Your task to perform on an android device: open app "ColorNote Notepad Notes" (install if not already installed) Image 0: 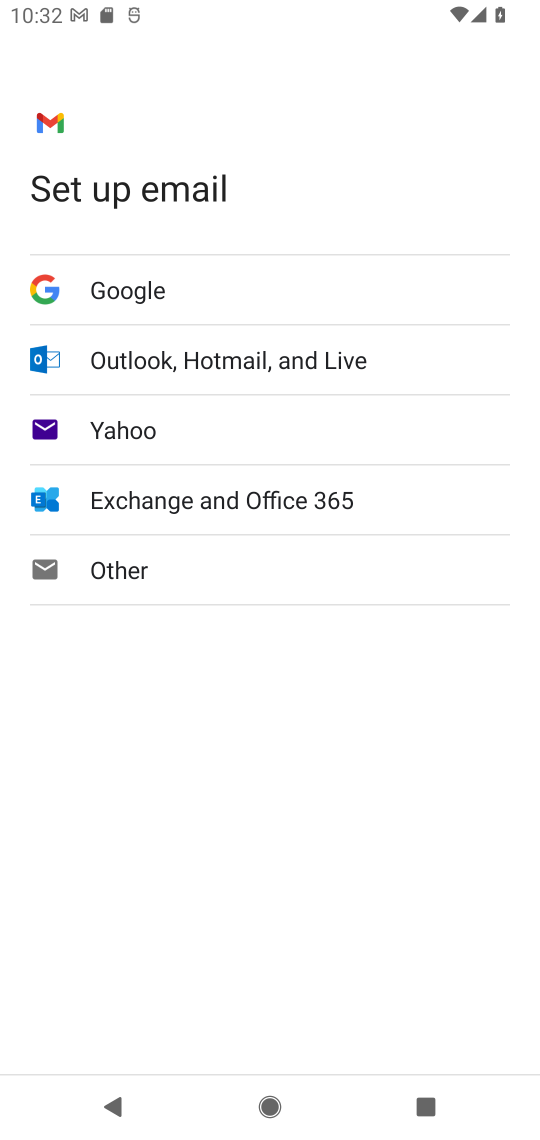
Step 0: press home button
Your task to perform on an android device: open app "ColorNote Notepad Notes" (install if not already installed) Image 1: 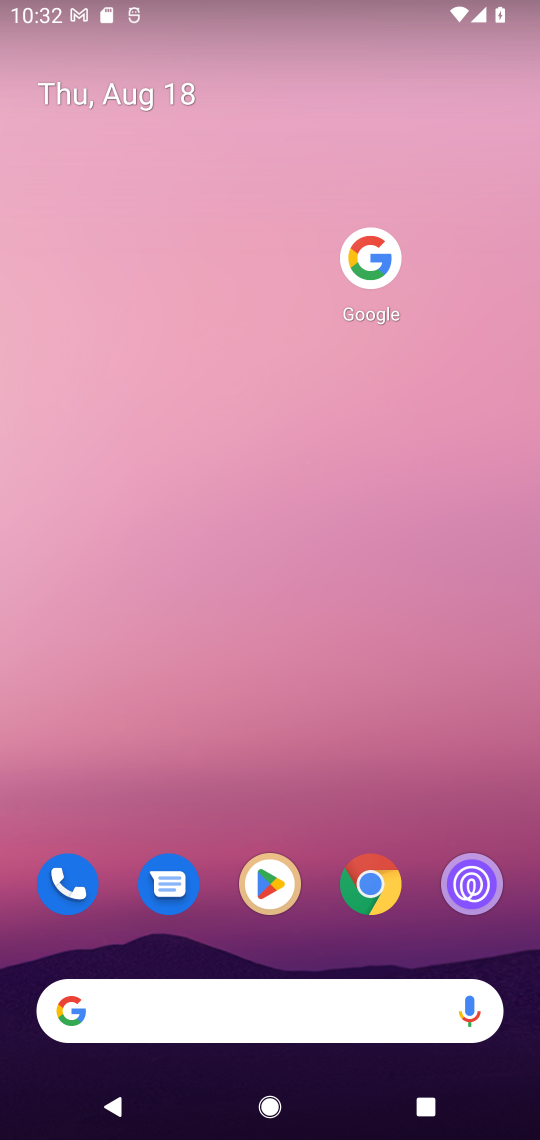
Step 1: click (278, 899)
Your task to perform on an android device: open app "ColorNote Notepad Notes" (install if not already installed) Image 2: 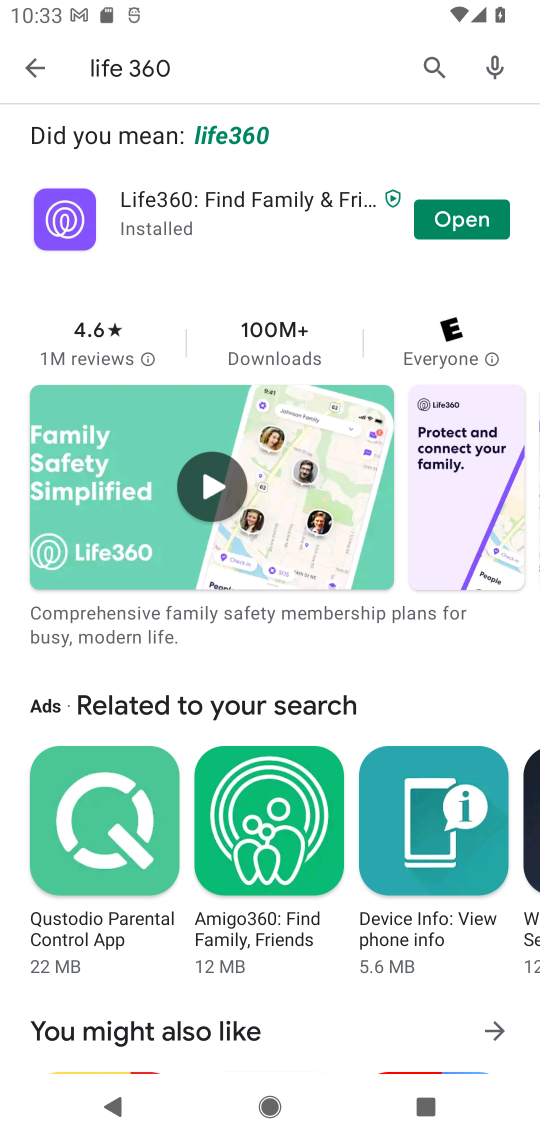
Step 2: click (428, 78)
Your task to perform on an android device: open app "ColorNote Notepad Notes" (install if not already installed) Image 3: 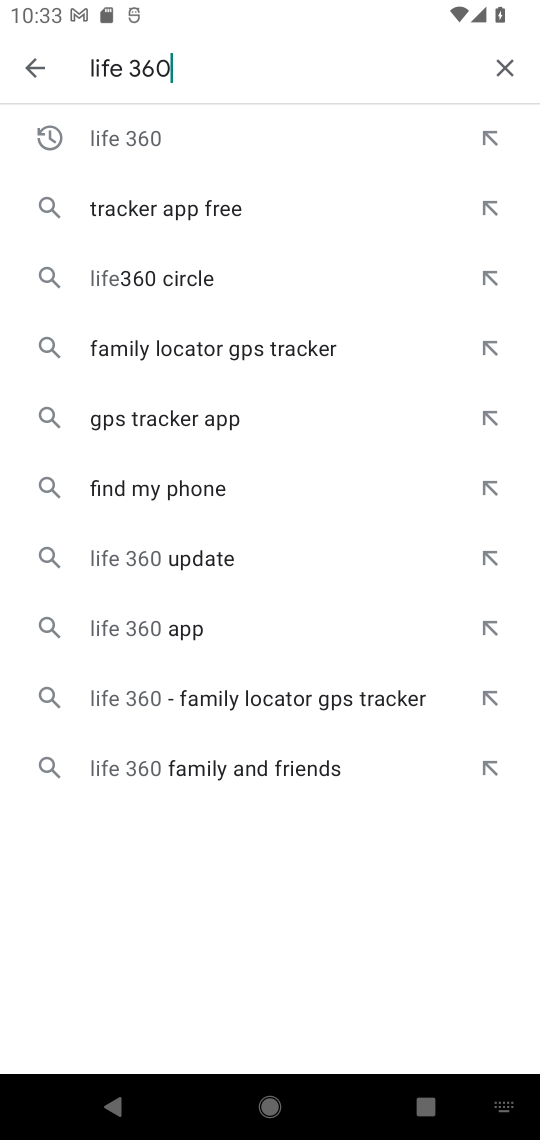
Step 3: click (522, 68)
Your task to perform on an android device: open app "ColorNote Notepad Notes" (install if not already installed) Image 4: 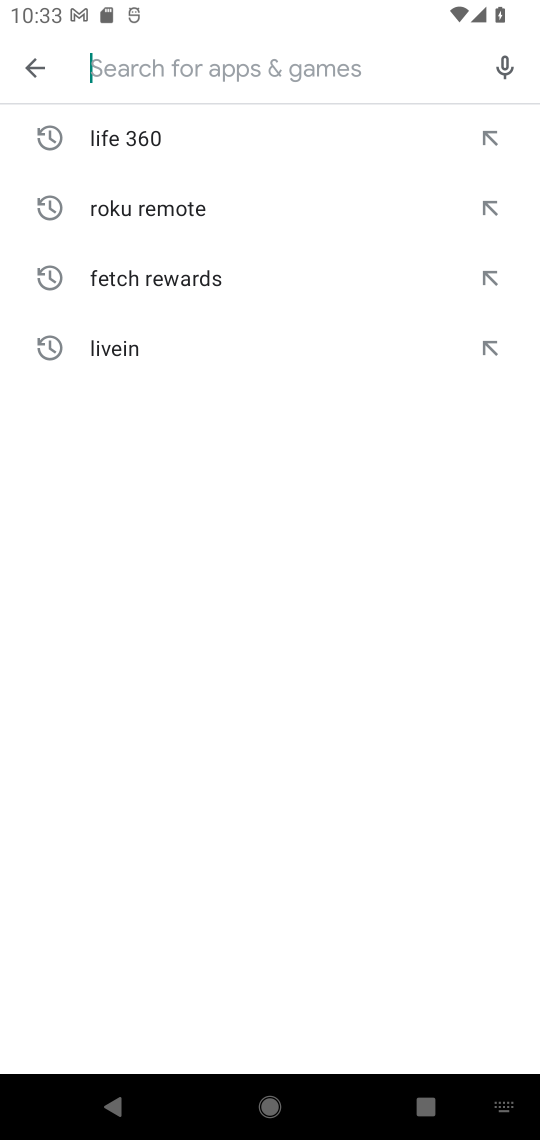
Step 4: type "clor note"
Your task to perform on an android device: open app "ColorNote Notepad Notes" (install if not already installed) Image 5: 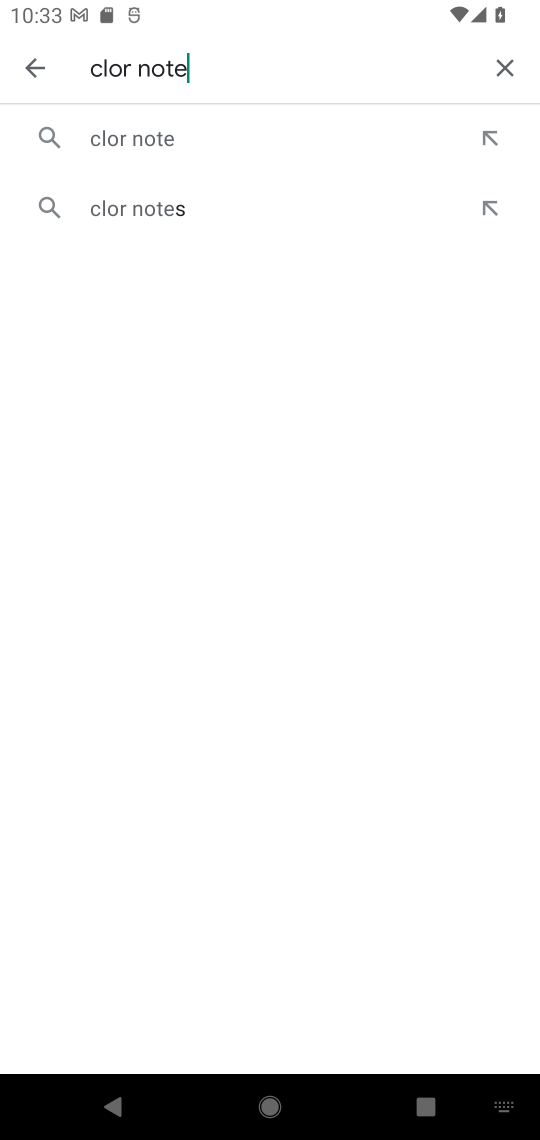
Step 5: click (166, 148)
Your task to perform on an android device: open app "ColorNote Notepad Notes" (install if not already installed) Image 6: 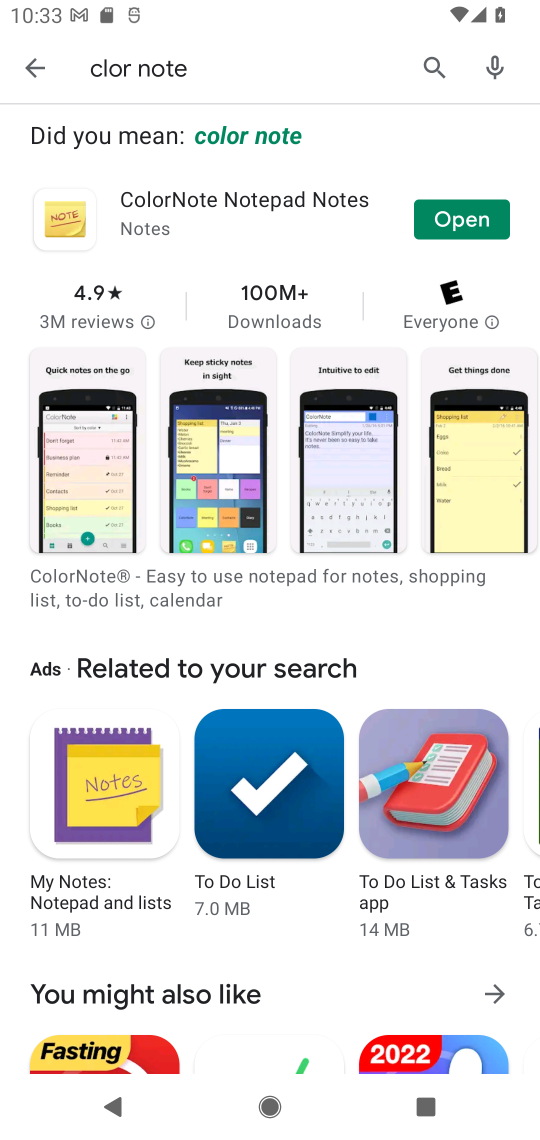
Step 6: click (462, 221)
Your task to perform on an android device: open app "ColorNote Notepad Notes" (install if not already installed) Image 7: 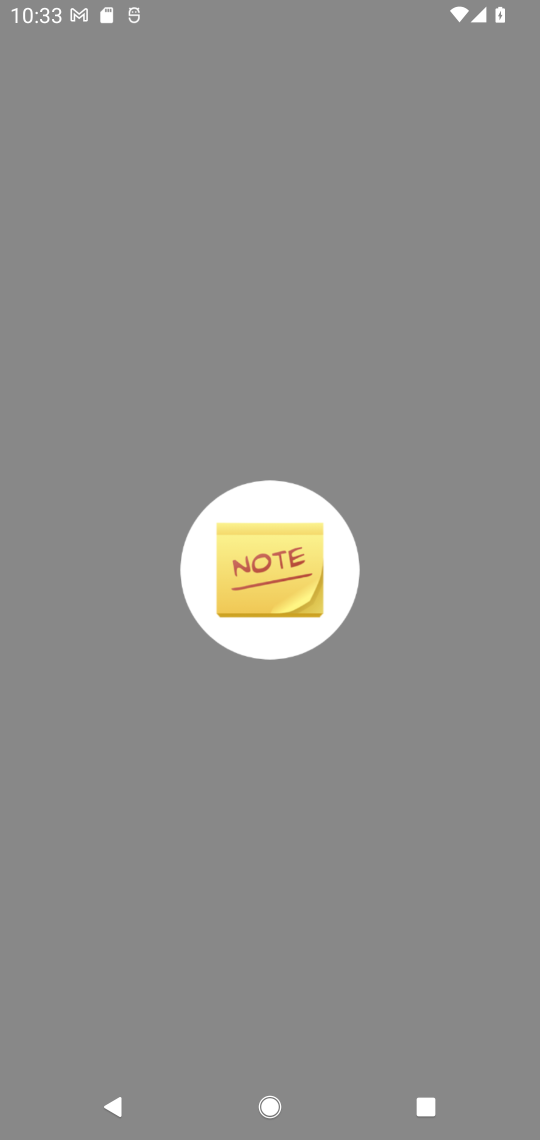
Step 7: task complete